Your task to perform on an android device: turn notification dots on Image 0: 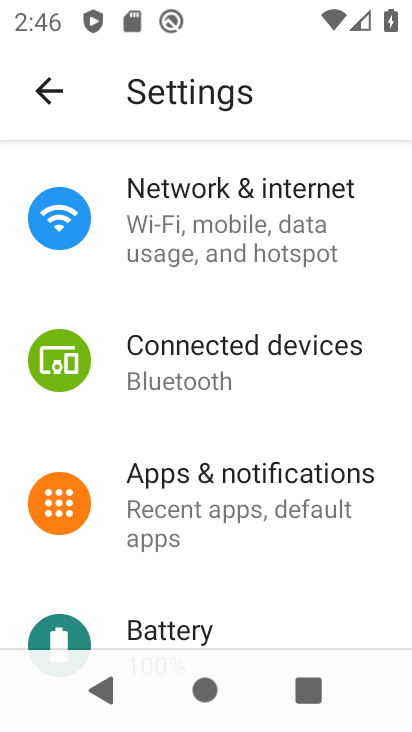
Step 0: click (250, 517)
Your task to perform on an android device: turn notification dots on Image 1: 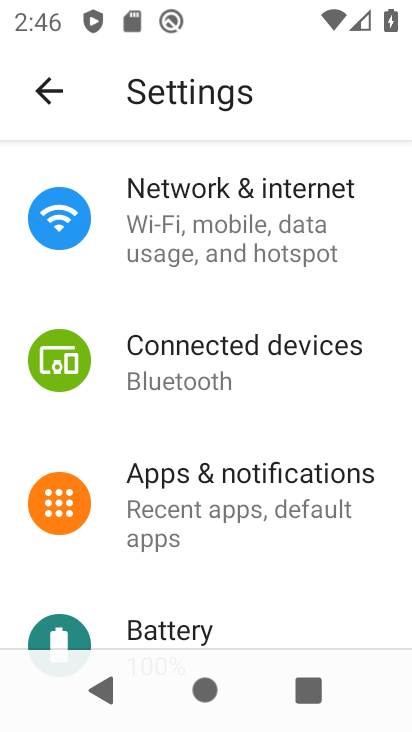
Step 1: drag from (233, 551) to (307, 304)
Your task to perform on an android device: turn notification dots on Image 2: 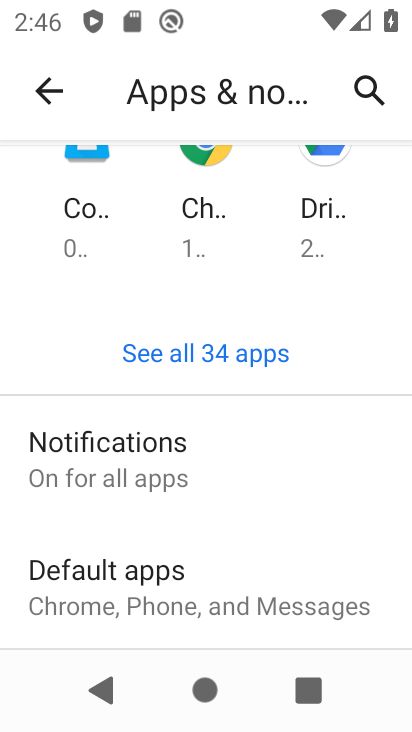
Step 2: click (253, 470)
Your task to perform on an android device: turn notification dots on Image 3: 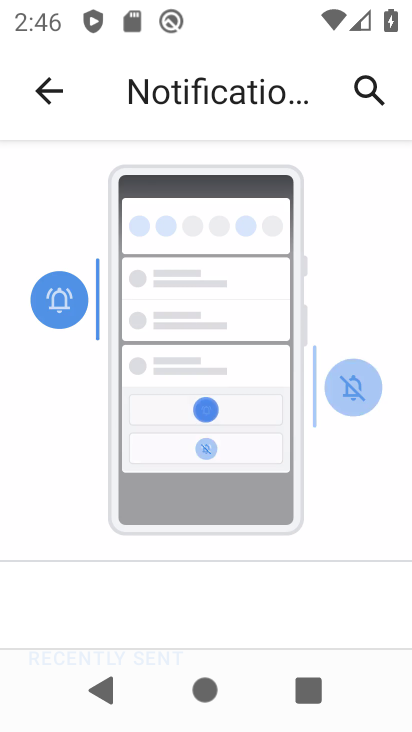
Step 3: drag from (215, 590) to (398, 160)
Your task to perform on an android device: turn notification dots on Image 4: 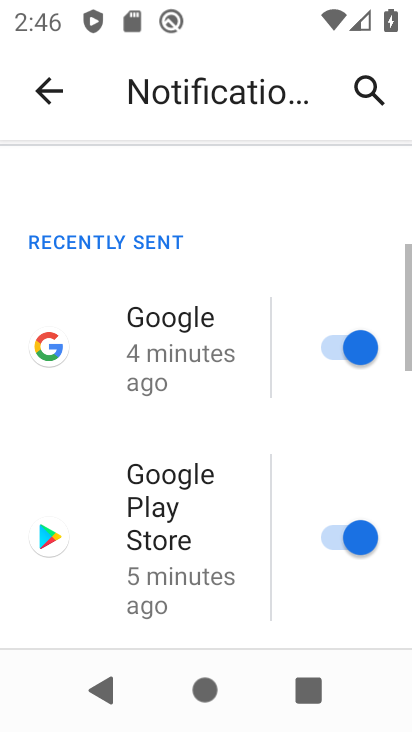
Step 4: drag from (162, 588) to (301, 186)
Your task to perform on an android device: turn notification dots on Image 5: 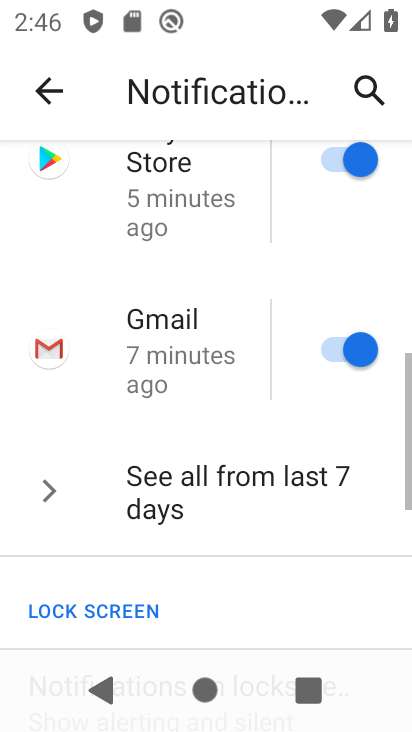
Step 5: drag from (122, 533) to (254, 131)
Your task to perform on an android device: turn notification dots on Image 6: 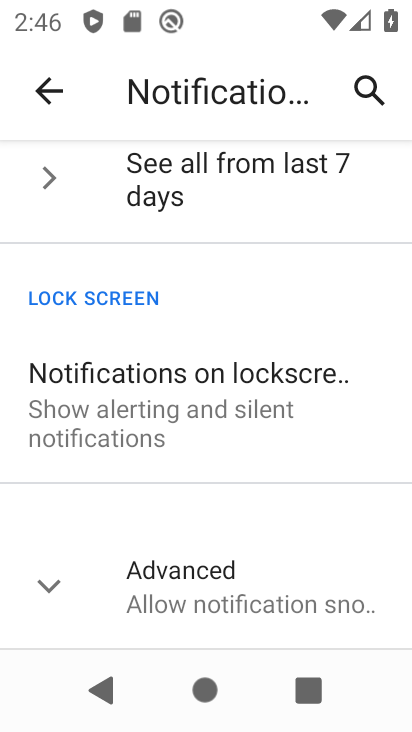
Step 6: click (199, 542)
Your task to perform on an android device: turn notification dots on Image 7: 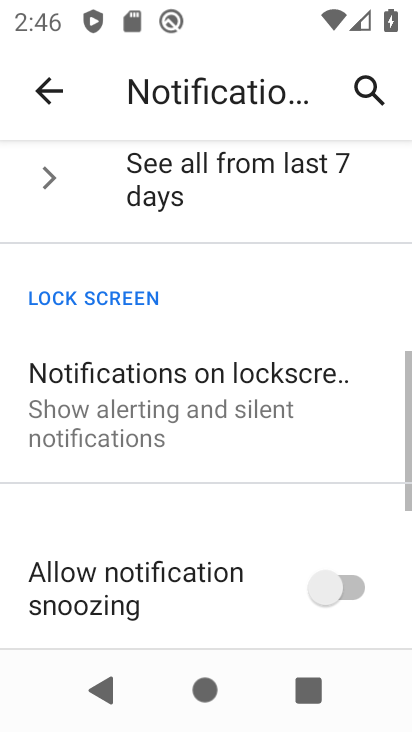
Step 7: task complete